Your task to perform on an android device: turn off wifi Image 0: 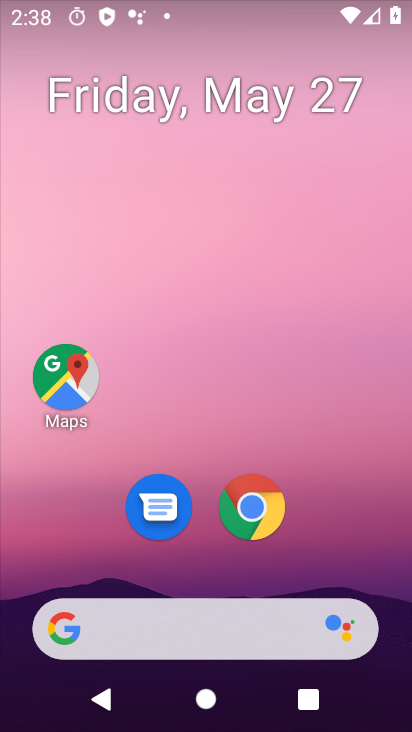
Step 0: drag from (181, 588) to (201, 174)
Your task to perform on an android device: turn off wifi Image 1: 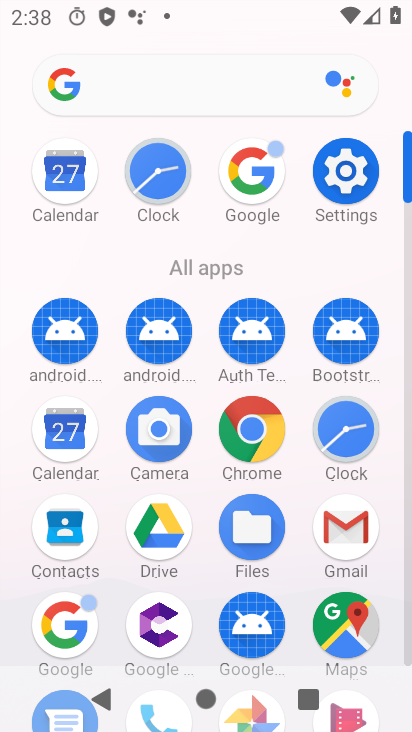
Step 1: click (342, 181)
Your task to perform on an android device: turn off wifi Image 2: 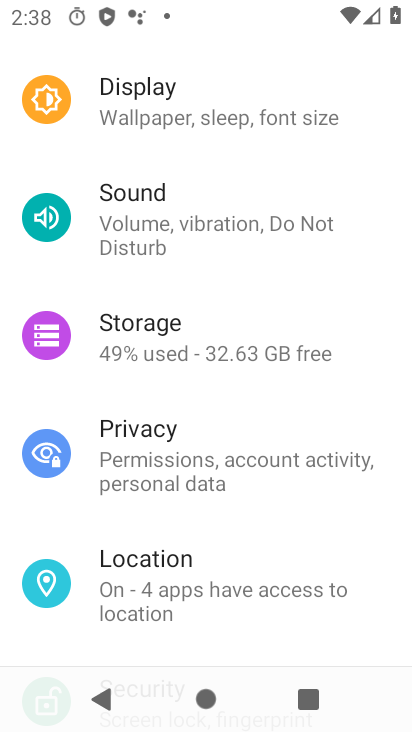
Step 2: drag from (200, 100) to (245, 472)
Your task to perform on an android device: turn off wifi Image 3: 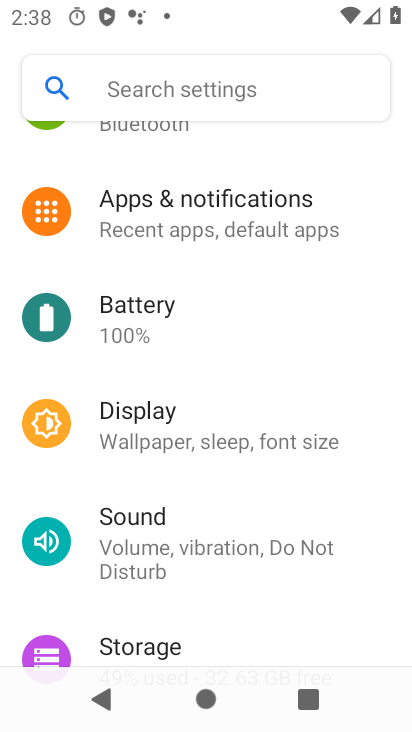
Step 3: drag from (198, 150) to (253, 527)
Your task to perform on an android device: turn off wifi Image 4: 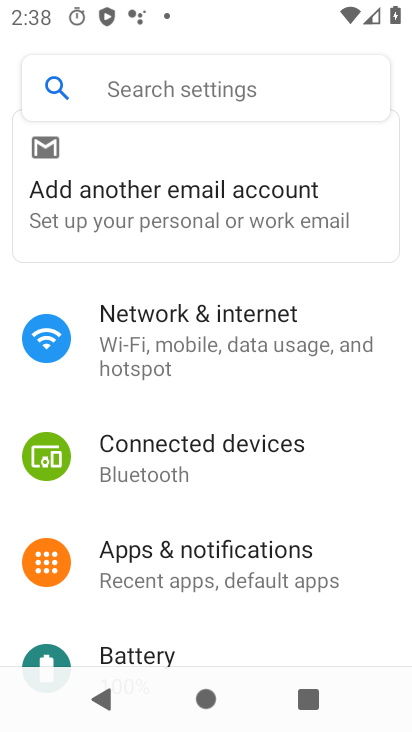
Step 4: click (177, 333)
Your task to perform on an android device: turn off wifi Image 5: 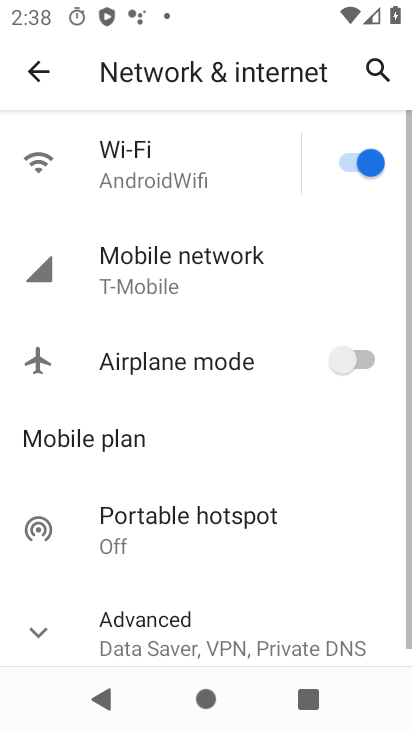
Step 5: click (348, 160)
Your task to perform on an android device: turn off wifi Image 6: 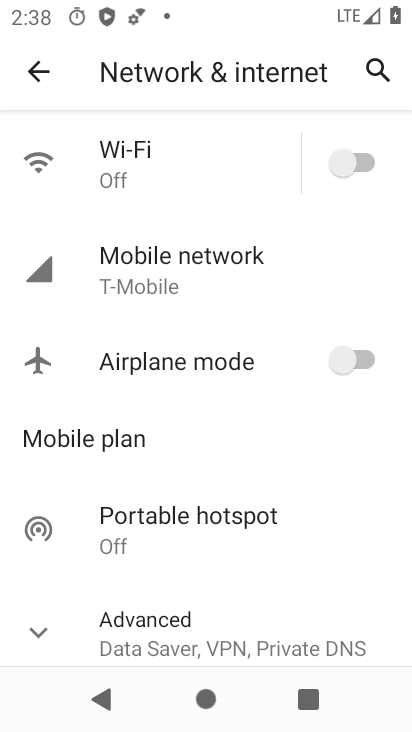
Step 6: task complete